Your task to perform on an android device: Open the map Image 0: 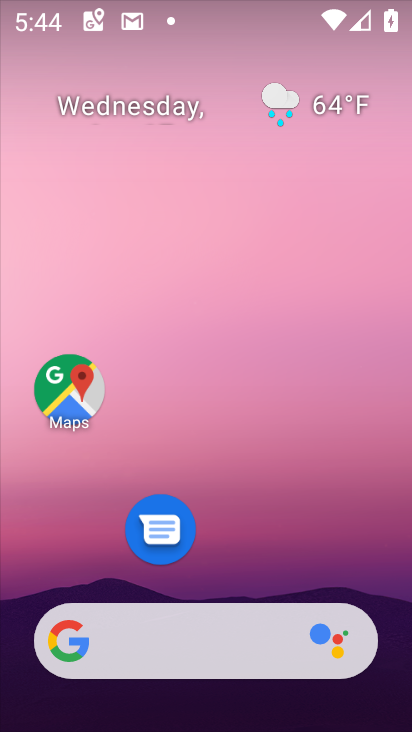
Step 0: click (54, 388)
Your task to perform on an android device: Open the map Image 1: 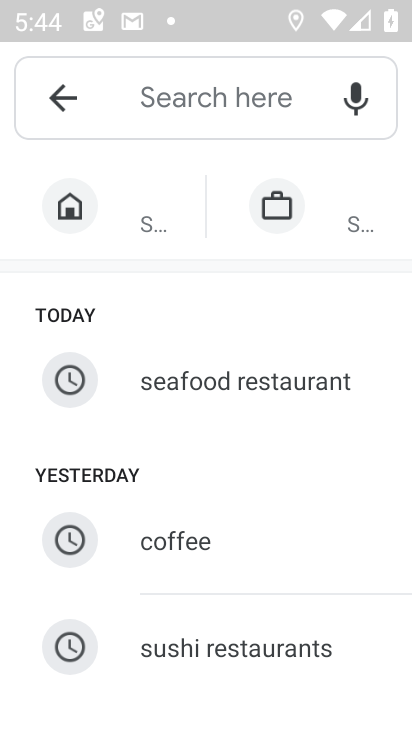
Step 1: click (62, 98)
Your task to perform on an android device: Open the map Image 2: 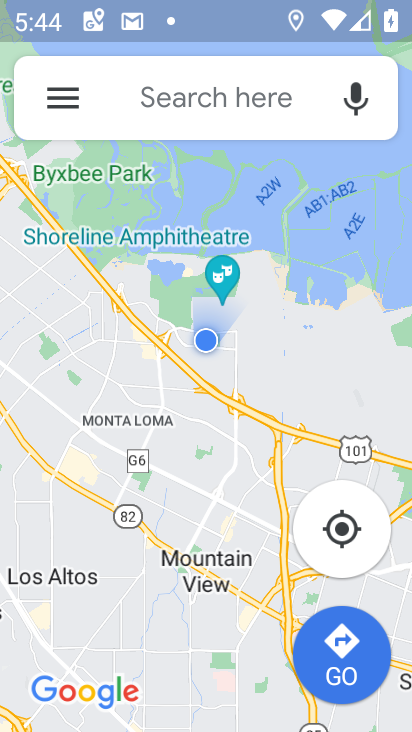
Step 2: task complete